Your task to perform on an android device: turn off airplane mode Image 0: 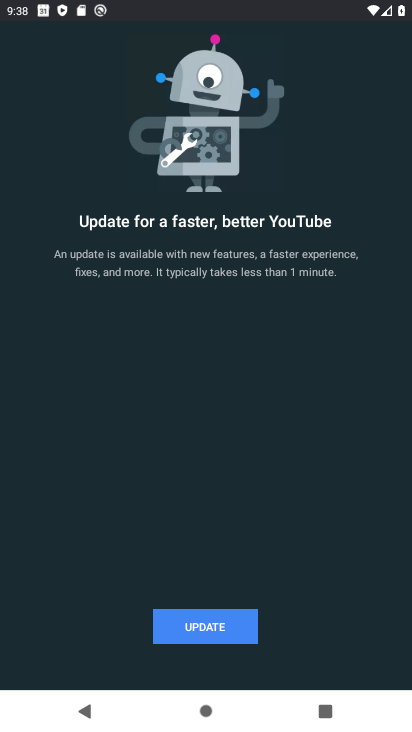
Step 0: press home button
Your task to perform on an android device: turn off airplane mode Image 1: 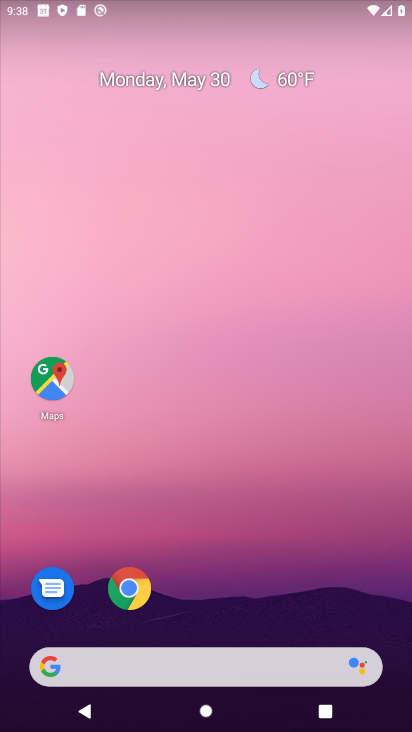
Step 1: drag from (231, 612) to (291, 184)
Your task to perform on an android device: turn off airplane mode Image 2: 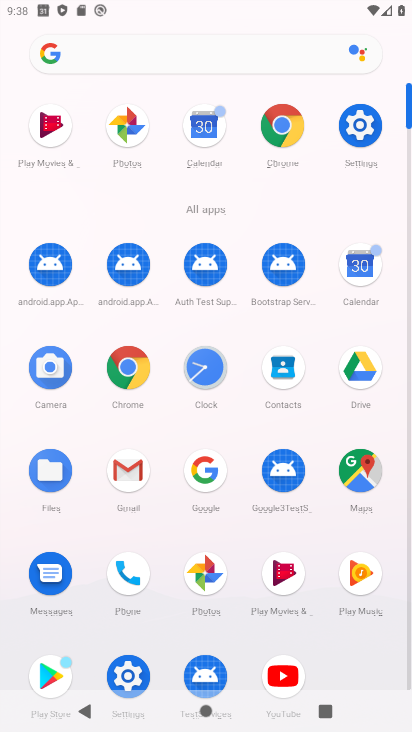
Step 2: click (365, 125)
Your task to perform on an android device: turn off airplane mode Image 3: 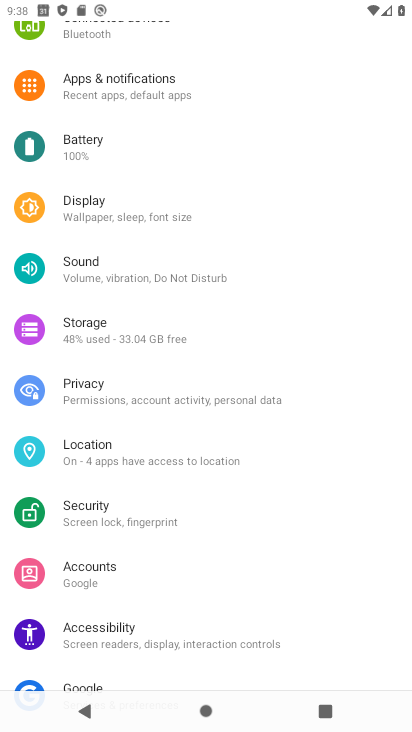
Step 3: drag from (162, 198) to (130, 652)
Your task to perform on an android device: turn off airplane mode Image 4: 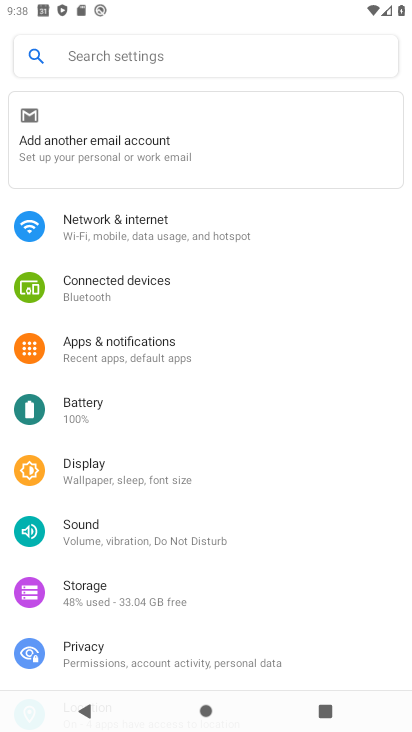
Step 4: click (185, 245)
Your task to perform on an android device: turn off airplane mode Image 5: 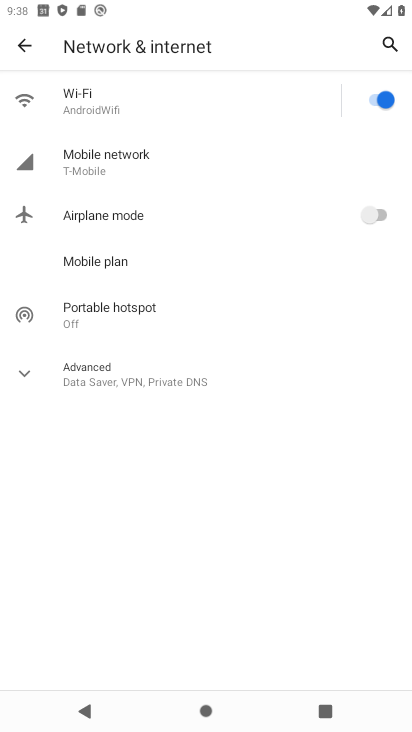
Step 5: task complete